Your task to perform on an android device: When is my next appointment? Image 0: 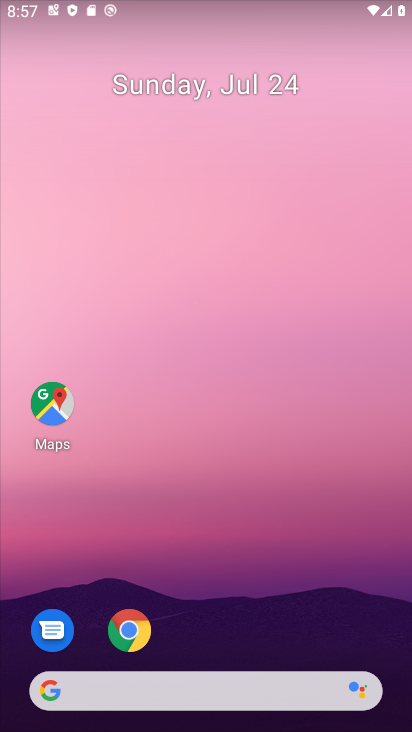
Step 0: drag from (181, 628) to (132, 172)
Your task to perform on an android device: When is my next appointment? Image 1: 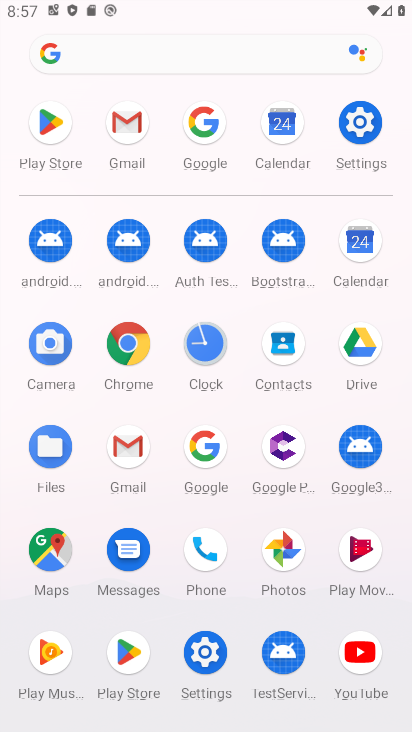
Step 1: click (340, 235)
Your task to perform on an android device: When is my next appointment? Image 2: 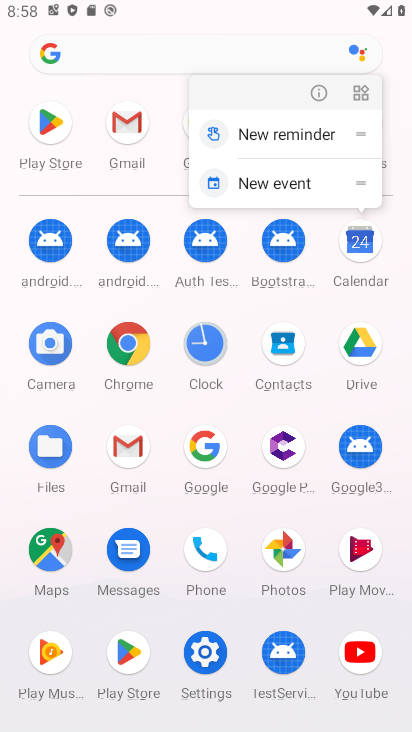
Step 2: click (361, 254)
Your task to perform on an android device: When is my next appointment? Image 3: 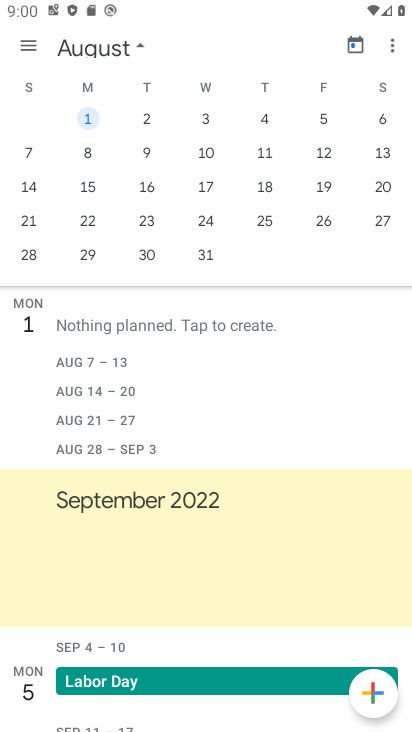
Step 3: task complete